Your task to perform on an android device: turn on notifications settings in the gmail app Image 0: 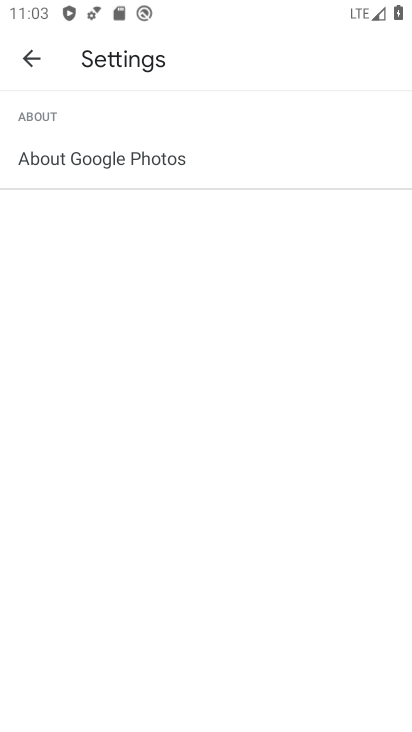
Step 0: click (35, 60)
Your task to perform on an android device: turn on notifications settings in the gmail app Image 1: 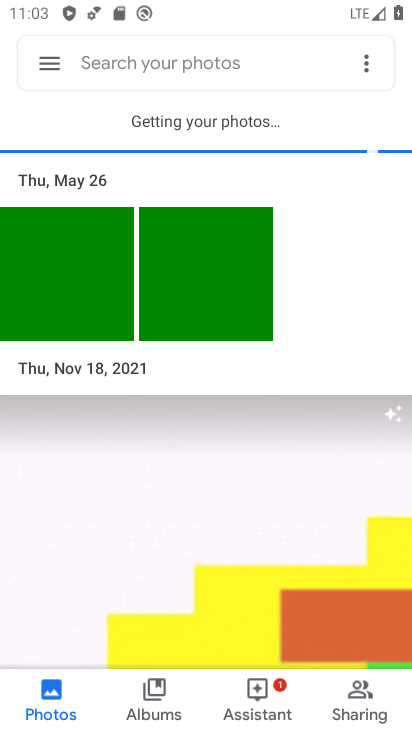
Step 1: press home button
Your task to perform on an android device: turn on notifications settings in the gmail app Image 2: 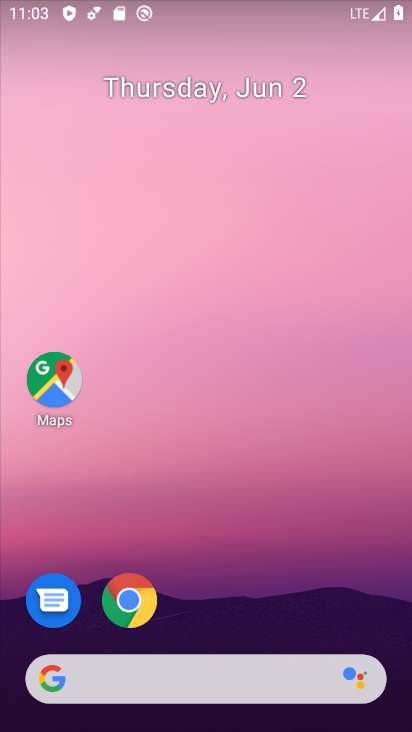
Step 2: drag from (240, 632) to (251, 158)
Your task to perform on an android device: turn on notifications settings in the gmail app Image 3: 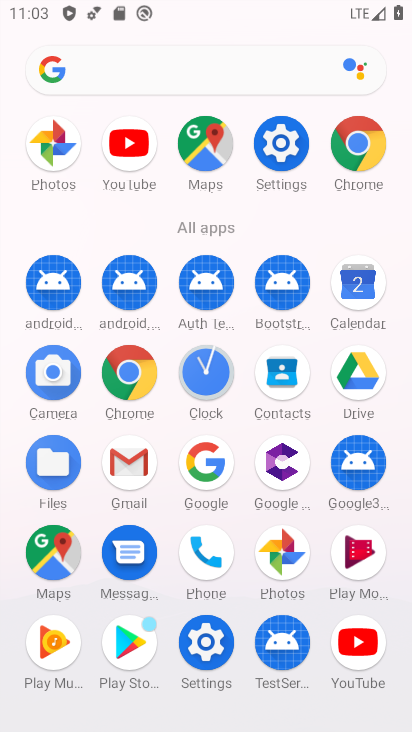
Step 3: click (125, 471)
Your task to perform on an android device: turn on notifications settings in the gmail app Image 4: 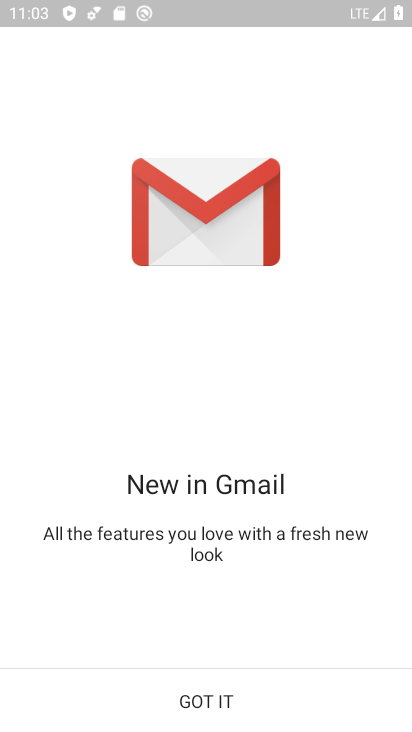
Step 4: click (208, 708)
Your task to perform on an android device: turn on notifications settings in the gmail app Image 5: 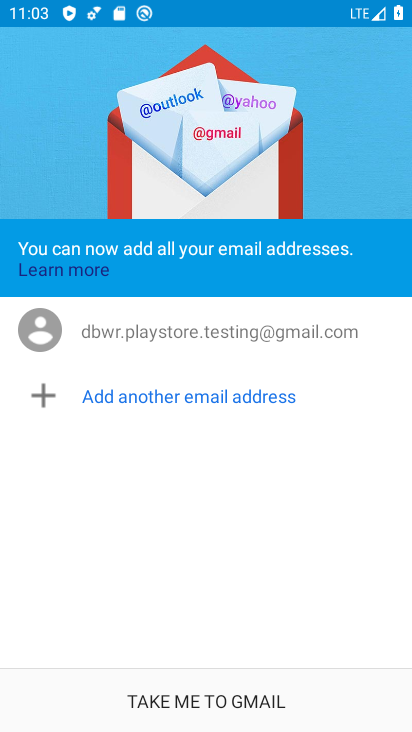
Step 5: click (207, 709)
Your task to perform on an android device: turn on notifications settings in the gmail app Image 6: 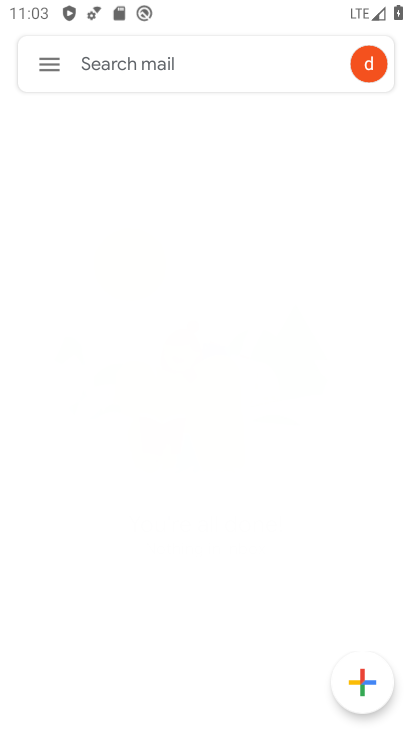
Step 6: click (42, 61)
Your task to perform on an android device: turn on notifications settings in the gmail app Image 7: 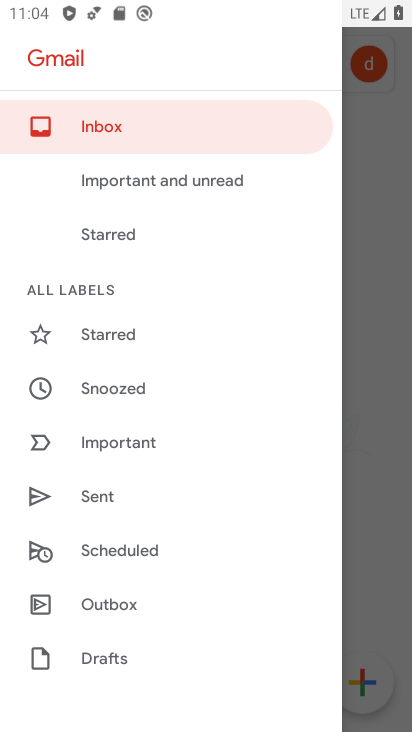
Step 7: drag from (144, 680) to (122, 391)
Your task to perform on an android device: turn on notifications settings in the gmail app Image 8: 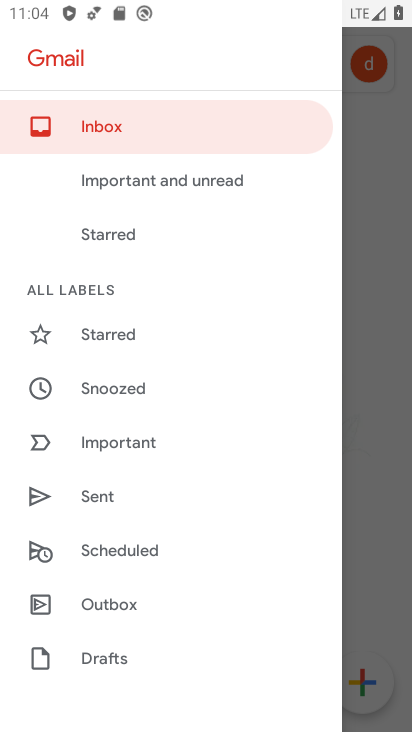
Step 8: drag from (102, 636) to (130, 233)
Your task to perform on an android device: turn on notifications settings in the gmail app Image 9: 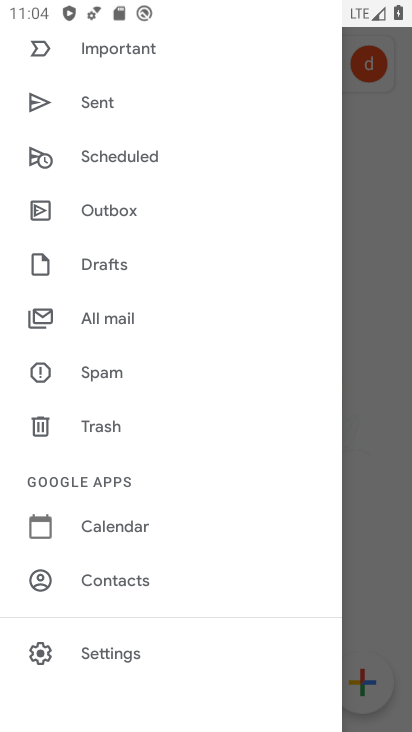
Step 9: click (88, 653)
Your task to perform on an android device: turn on notifications settings in the gmail app Image 10: 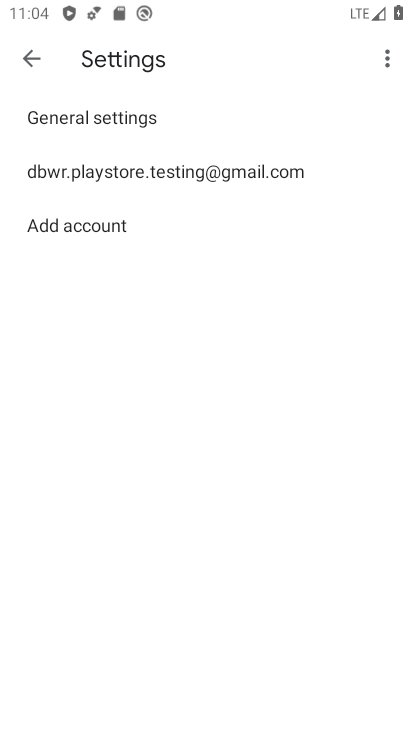
Step 10: click (230, 182)
Your task to perform on an android device: turn on notifications settings in the gmail app Image 11: 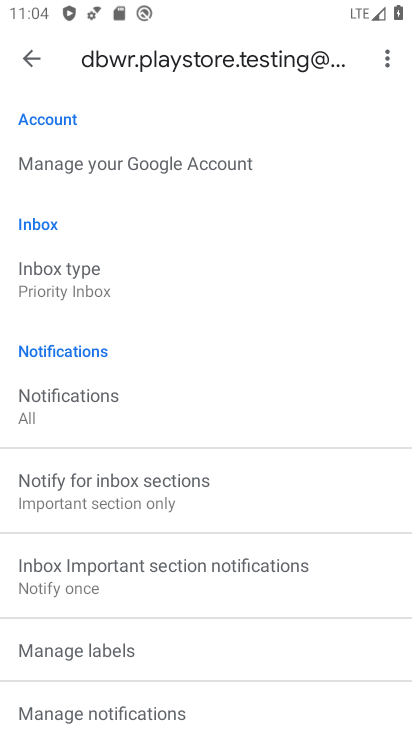
Step 11: click (173, 709)
Your task to perform on an android device: turn on notifications settings in the gmail app Image 12: 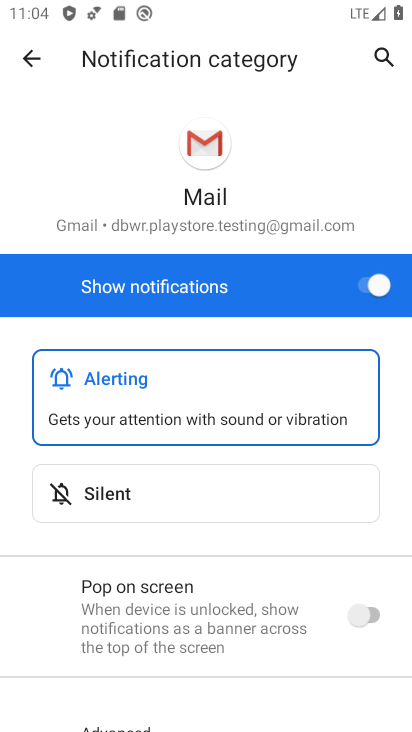
Step 12: drag from (247, 679) to (243, 469)
Your task to perform on an android device: turn on notifications settings in the gmail app Image 13: 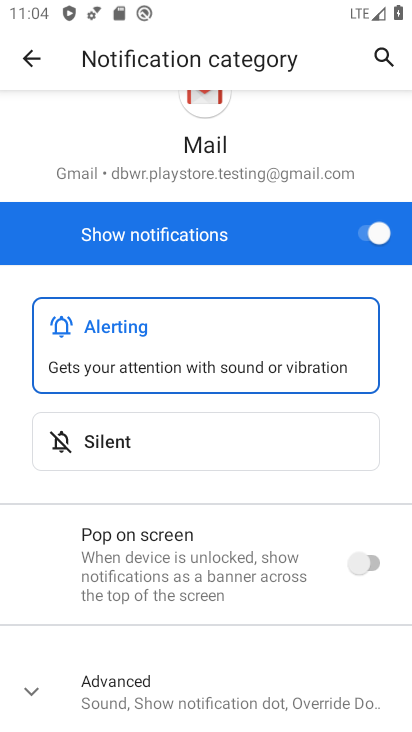
Step 13: click (370, 577)
Your task to perform on an android device: turn on notifications settings in the gmail app Image 14: 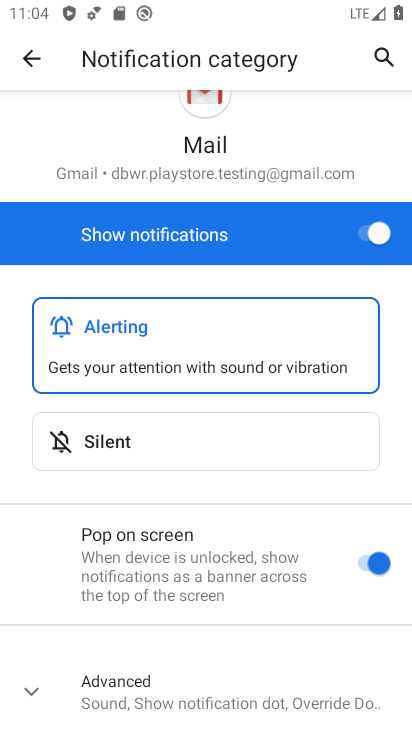
Step 14: task complete